Your task to perform on an android device: turn off priority inbox in the gmail app Image 0: 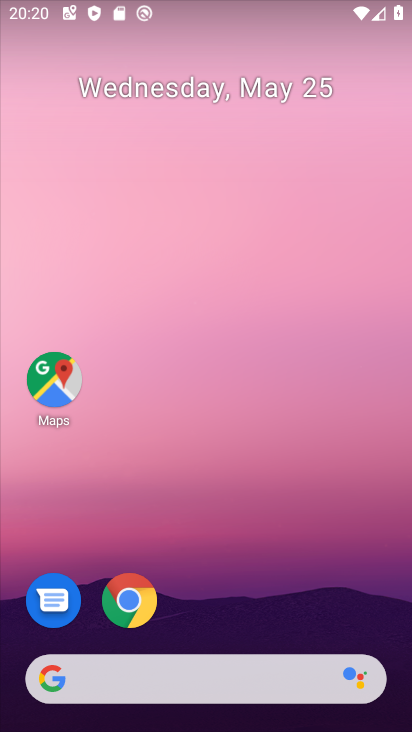
Step 0: drag from (256, 560) to (271, 237)
Your task to perform on an android device: turn off priority inbox in the gmail app Image 1: 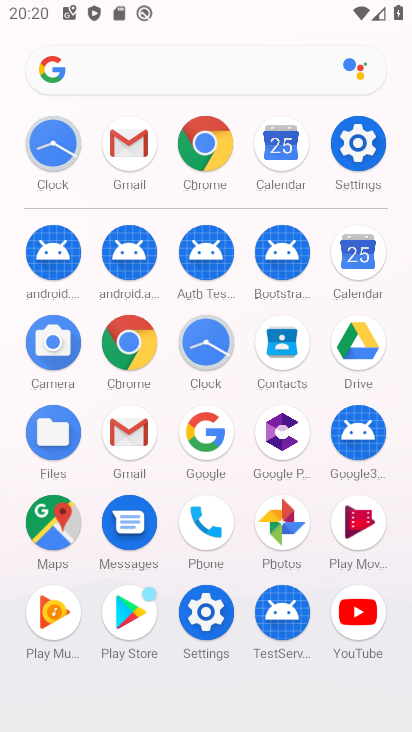
Step 1: click (120, 437)
Your task to perform on an android device: turn off priority inbox in the gmail app Image 2: 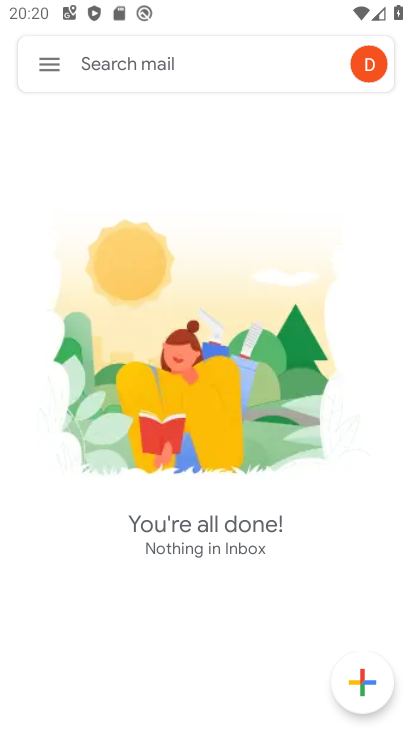
Step 2: click (64, 151)
Your task to perform on an android device: turn off priority inbox in the gmail app Image 3: 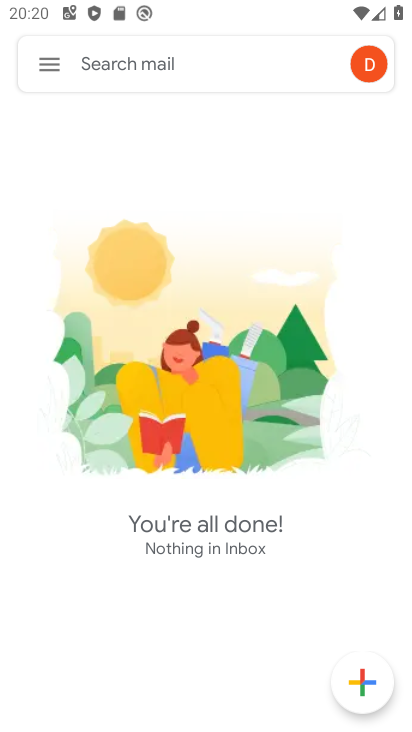
Step 3: click (48, 80)
Your task to perform on an android device: turn off priority inbox in the gmail app Image 4: 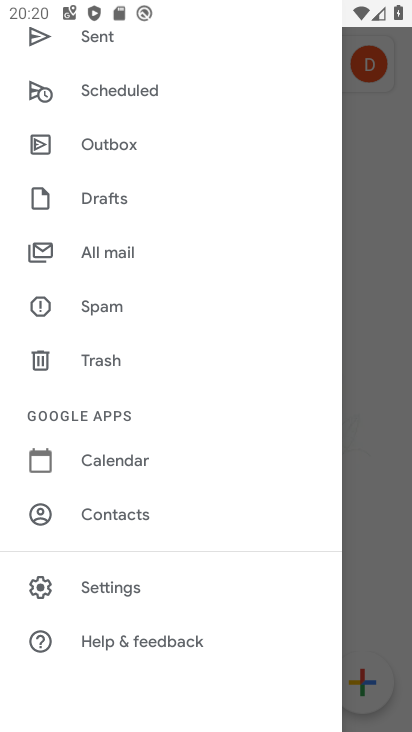
Step 4: click (145, 596)
Your task to perform on an android device: turn off priority inbox in the gmail app Image 5: 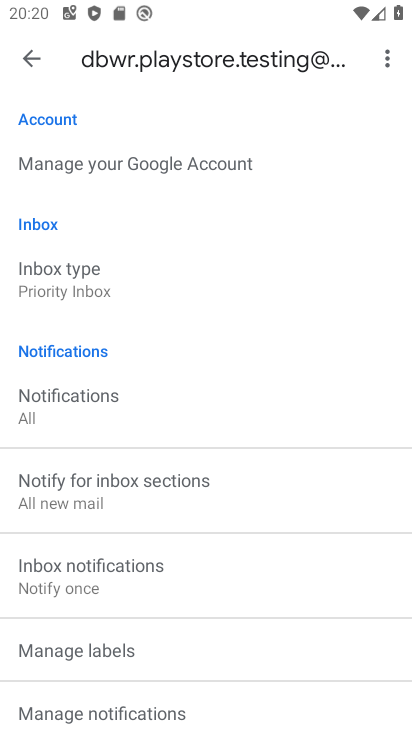
Step 5: click (106, 286)
Your task to perform on an android device: turn off priority inbox in the gmail app Image 6: 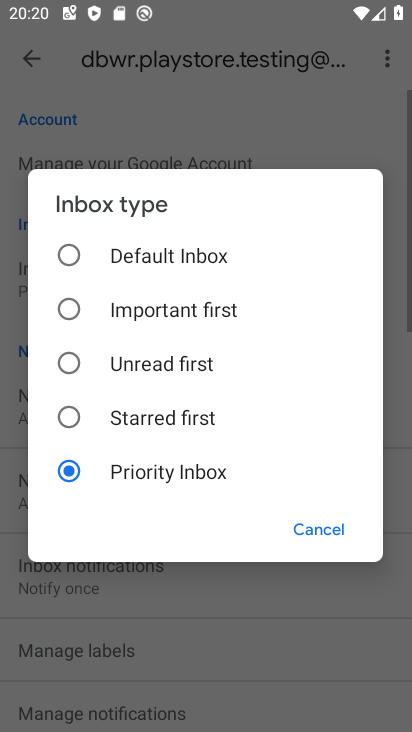
Step 6: click (101, 259)
Your task to perform on an android device: turn off priority inbox in the gmail app Image 7: 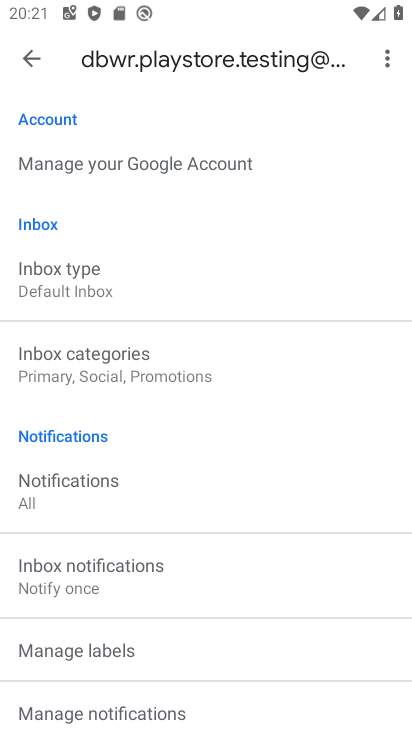
Step 7: task complete